Your task to perform on an android device: delete a single message in the gmail app Image 0: 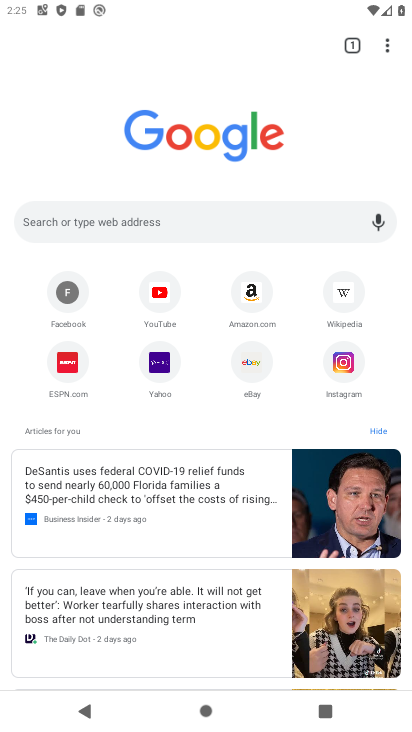
Step 0: press home button
Your task to perform on an android device: delete a single message in the gmail app Image 1: 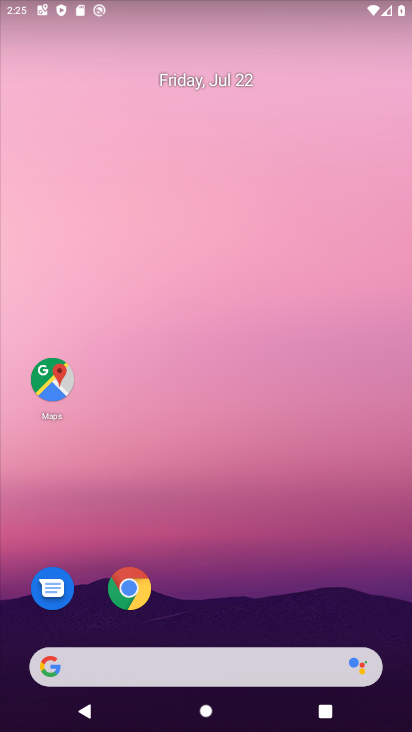
Step 1: drag from (190, 635) to (275, 14)
Your task to perform on an android device: delete a single message in the gmail app Image 2: 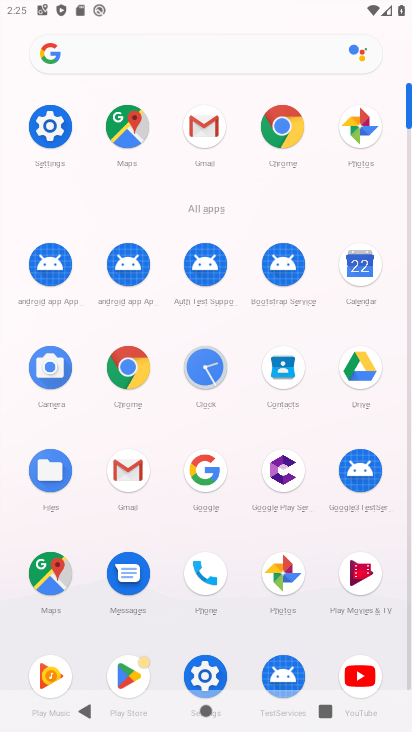
Step 2: click (123, 461)
Your task to perform on an android device: delete a single message in the gmail app Image 3: 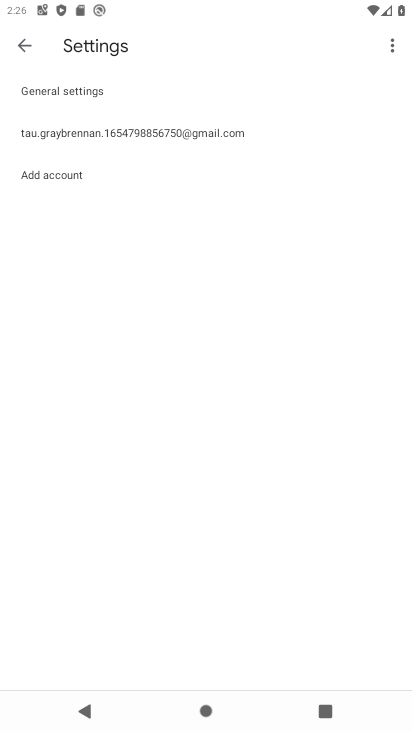
Step 3: click (26, 41)
Your task to perform on an android device: delete a single message in the gmail app Image 4: 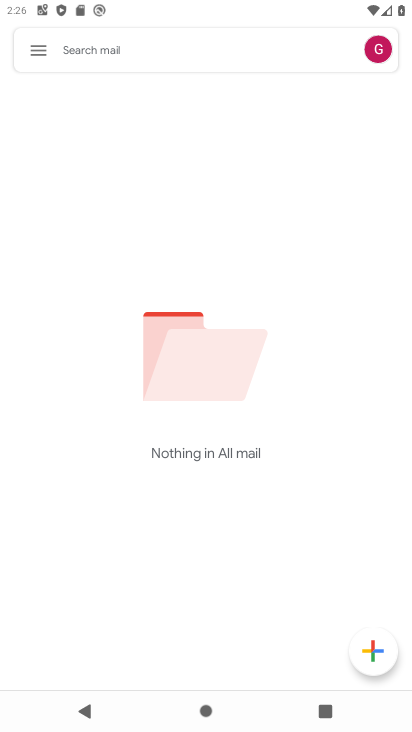
Step 4: task complete